Your task to perform on an android device: Open the map Image 0: 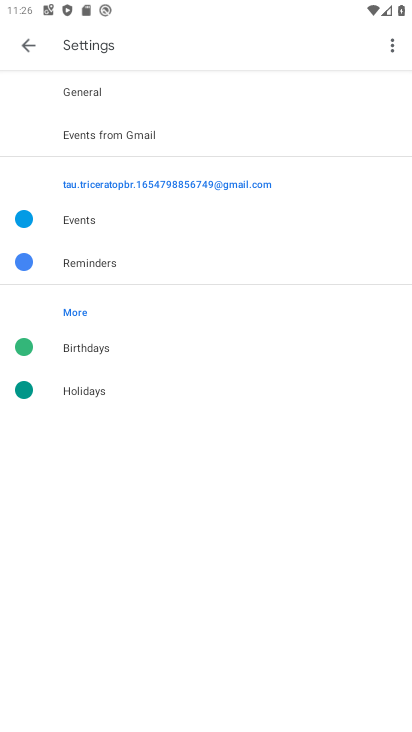
Step 0: press home button
Your task to perform on an android device: Open the map Image 1: 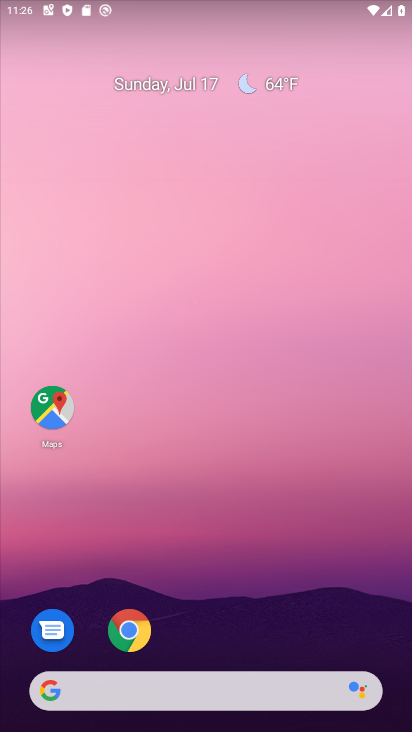
Step 1: click (51, 408)
Your task to perform on an android device: Open the map Image 2: 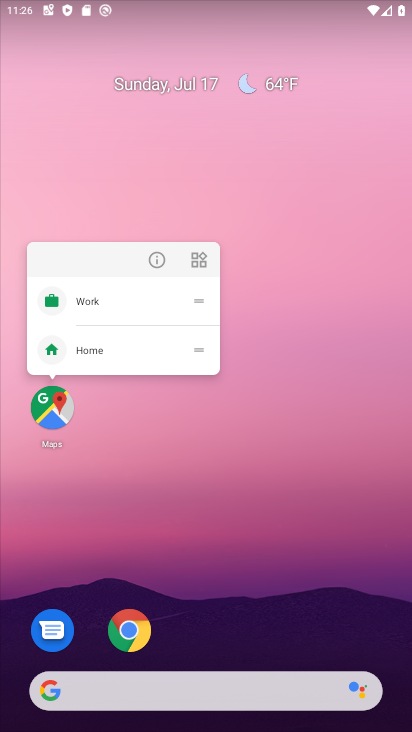
Step 2: click (55, 406)
Your task to perform on an android device: Open the map Image 3: 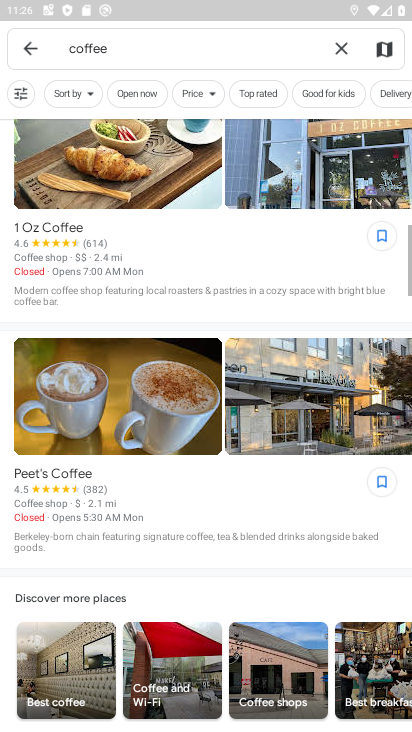
Step 3: click (335, 48)
Your task to perform on an android device: Open the map Image 4: 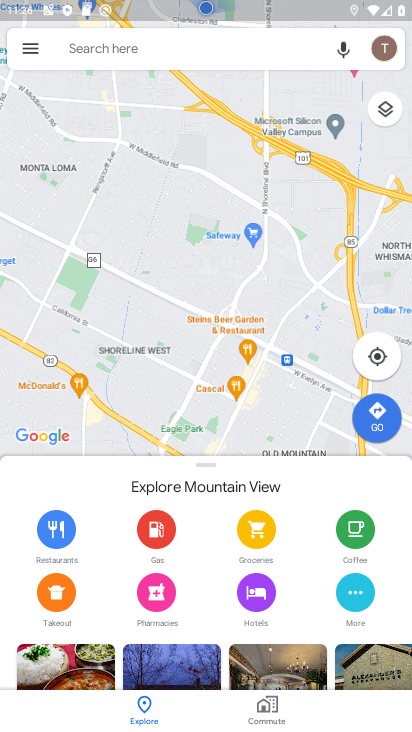
Step 4: task complete